Your task to perform on an android device: Go to accessibility settings Image 0: 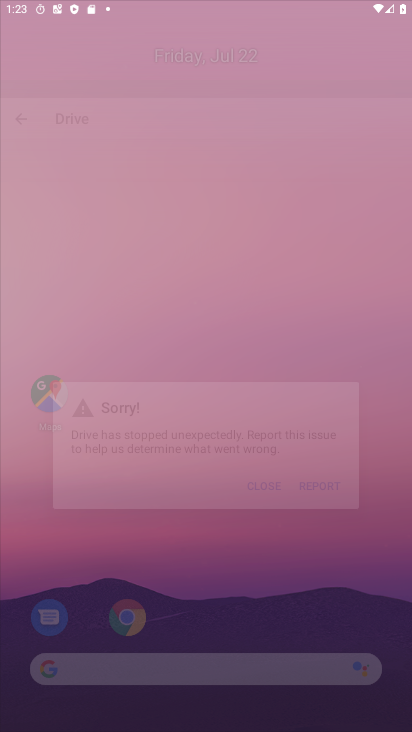
Step 0: drag from (245, 707) to (229, 216)
Your task to perform on an android device: Go to accessibility settings Image 1: 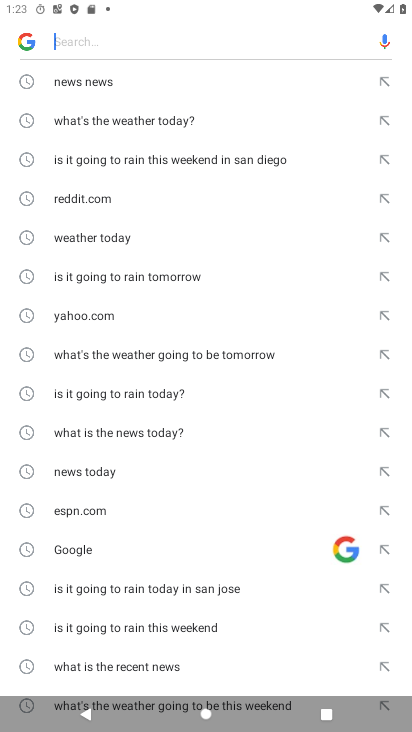
Step 1: press home button
Your task to perform on an android device: Go to accessibility settings Image 2: 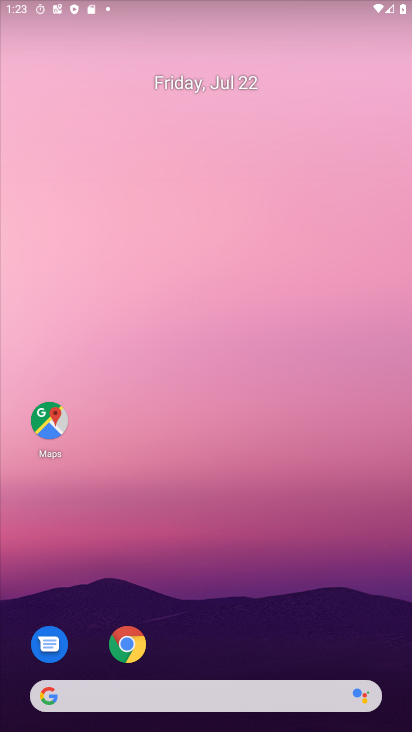
Step 2: drag from (225, 667) to (221, 3)
Your task to perform on an android device: Go to accessibility settings Image 3: 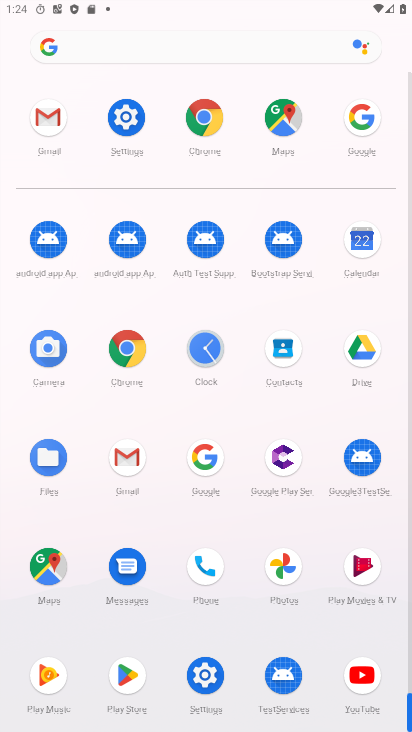
Step 3: click (125, 129)
Your task to perform on an android device: Go to accessibility settings Image 4: 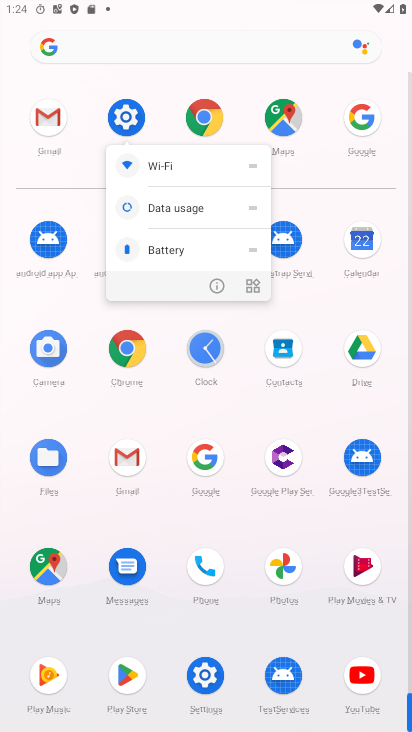
Step 4: click (130, 109)
Your task to perform on an android device: Go to accessibility settings Image 5: 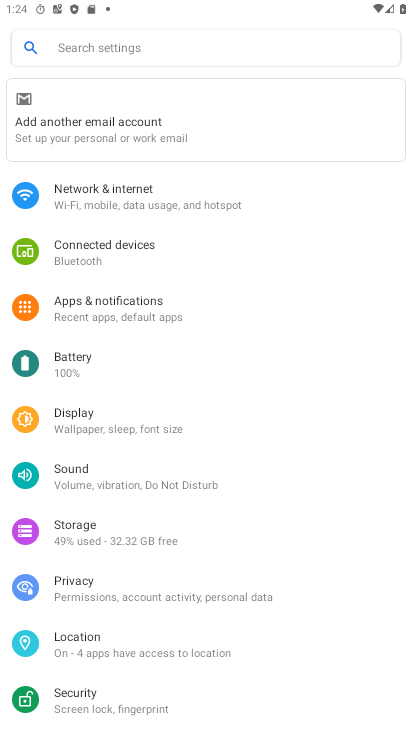
Step 5: drag from (190, 579) to (252, 152)
Your task to perform on an android device: Go to accessibility settings Image 6: 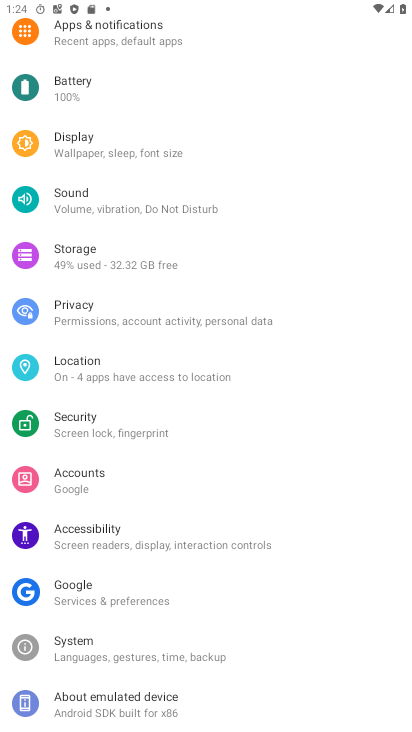
Step 6: click (129, 538)
Your task to perform on an android device: Go to accessibility settings Image 7: 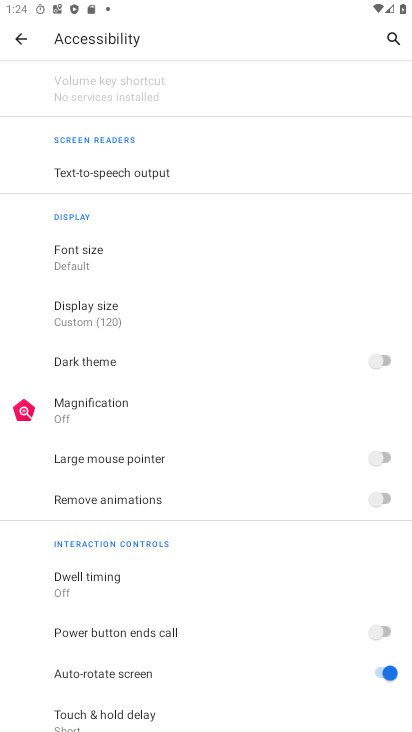
Step 7: task complete